Your task to perform on an android device: change notifications settings Image 0: 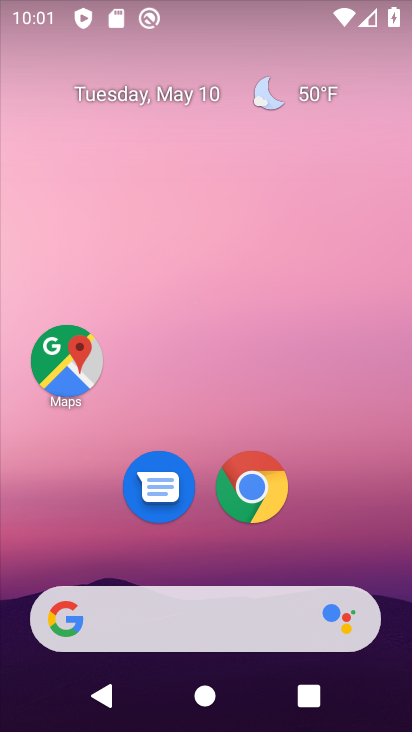
Step 0: drag from (332, 483) to (334, 36)
Your task to perform on an android device: change notifications settings Image 1: 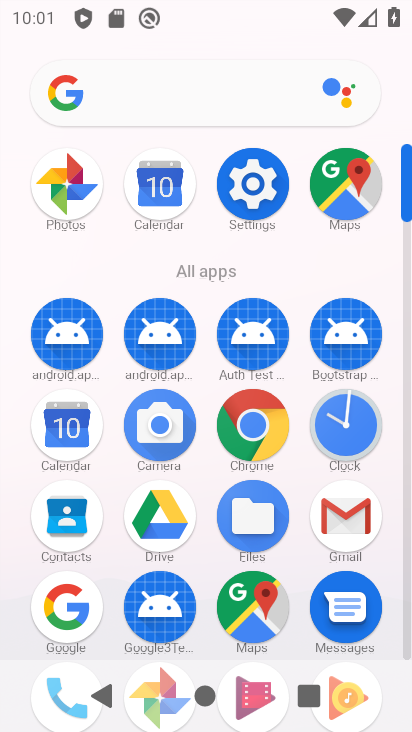
Step 1: click (250, 209)
Your task to perform on an android device: change notifications settings Image 2: 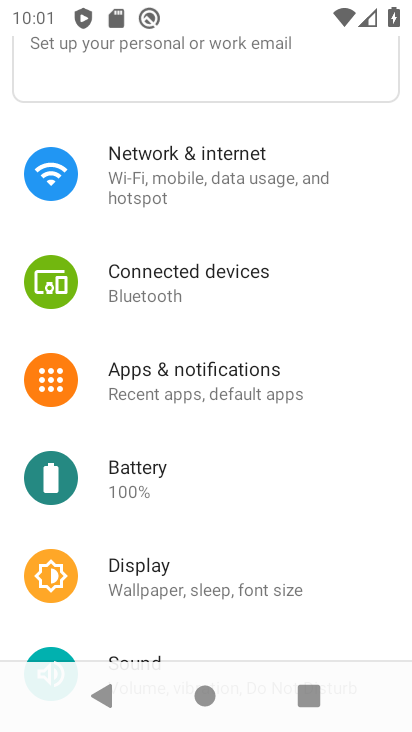
Step 2: click (184, 387)
Your task to perform on an android device: change notifications settings Image 3: 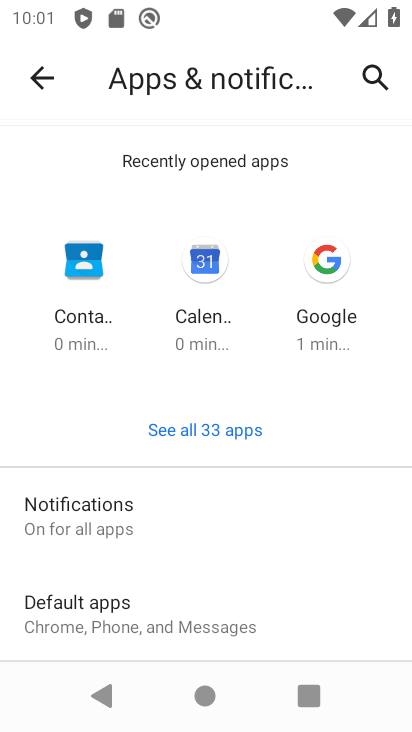
Step 3: click (122, 516)
Your task to perform on an android device: change notifications settings Image 4: 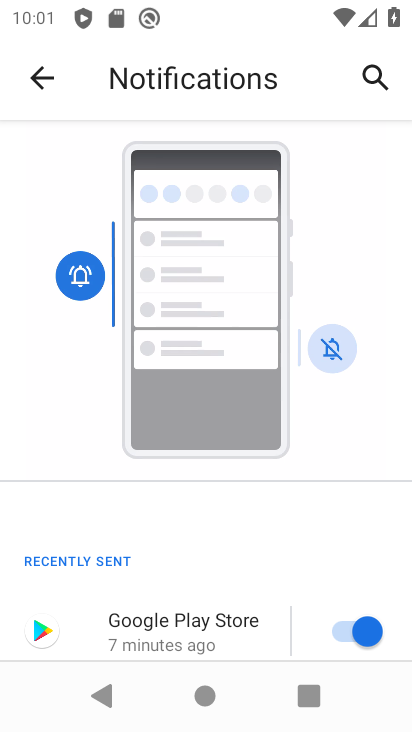
Step 4: drag from (169, 611) to (163, 209)
Your task to perform on an android device: change notifications settings Image 5: 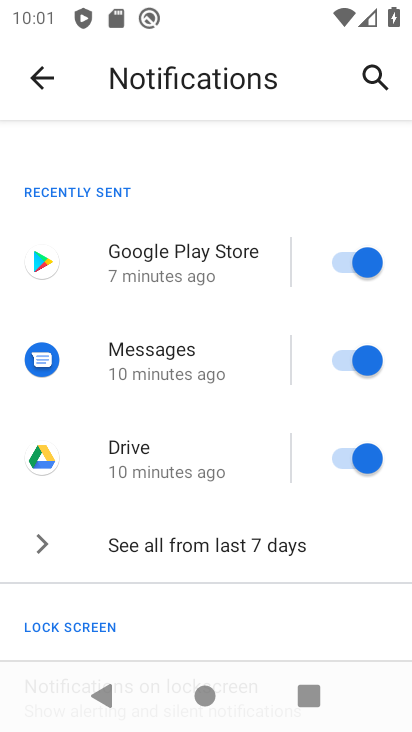
Step 5: drag from (181, 586) to (199, 247)
Your task to perform on an android device: change notifications settings Image 6: 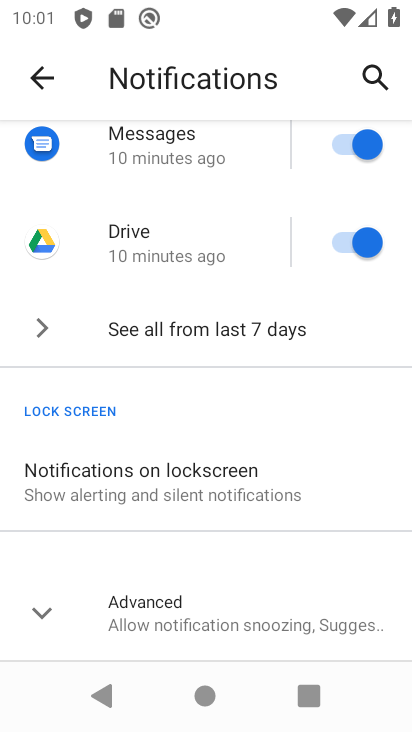
Step 6: click (137, 598)
Your task to perform on an android device: change notifications settings Image 7: 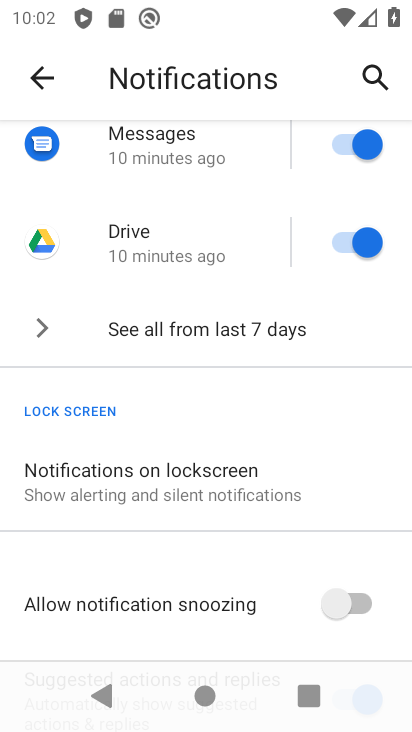
Step 7: drag from (151, 558) to (153, 310)
Your task to perform on an android device: change notifications settings Image 8: 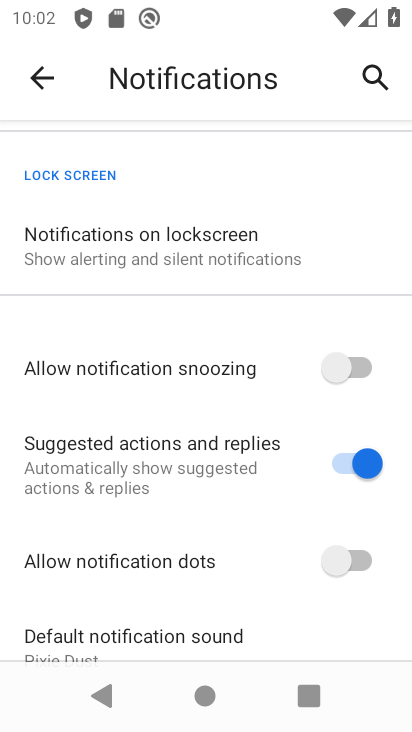
Step 8: click (155, 376)
Your task to perform on an android device: change notifications settings Image 9: 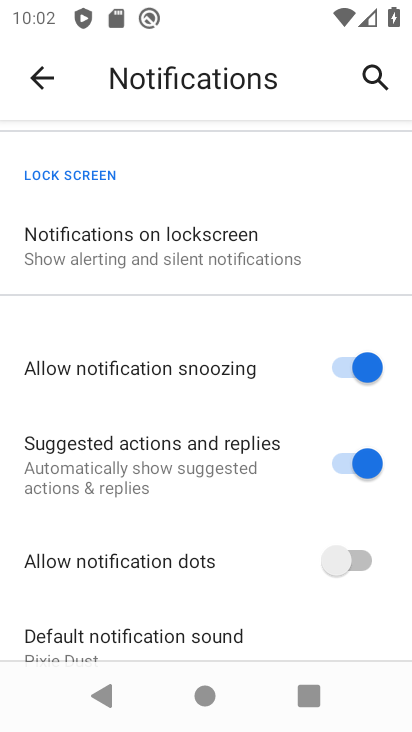
Step 9: click (170, 563)
Your task to perform on an android device: change notifications settings Image 10: 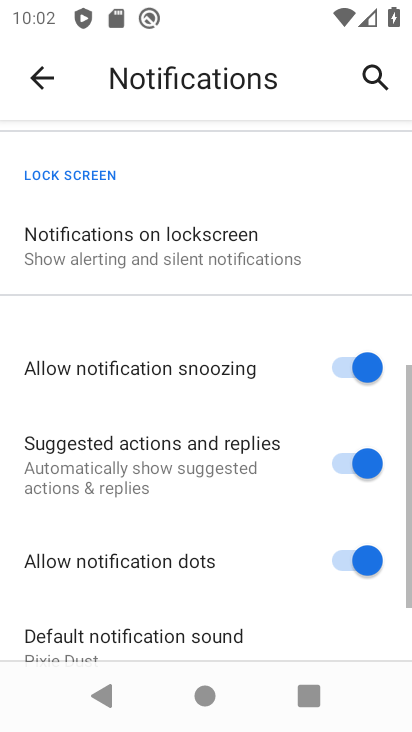
Step 10: task complete